Your task to perform on an android device: move an email to a new category in the gmail app Image 0: 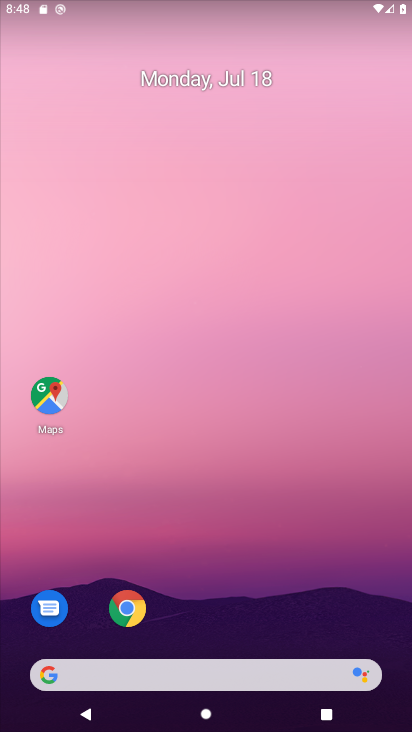
Step 0: drag from (190, 674) to (280, 100)
Your task to perform on an android device: move an email to a new category in the gmail app Image 1: 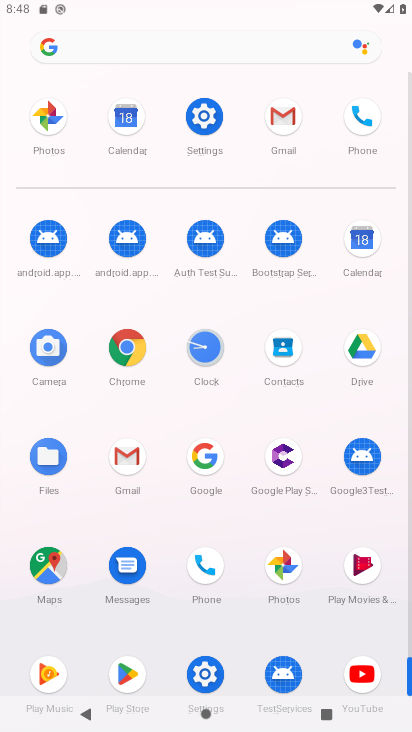
Step 1: click (280, 114)
Your task to perform on an android device: move an email to a new category in the gmail app Image 2: 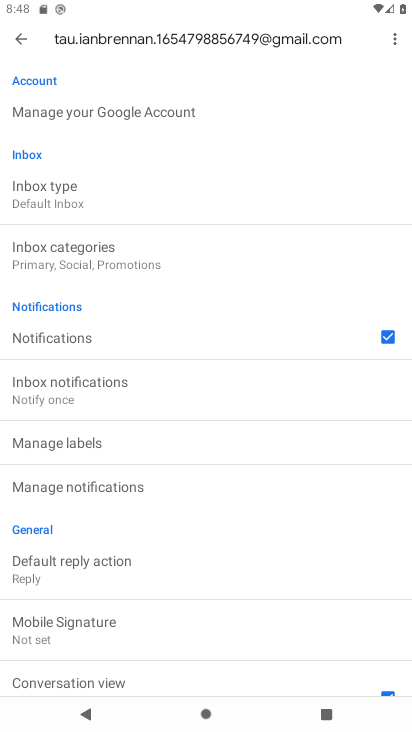
Step 2: press back button
Your task to perform on an android device: move an email to a new category in the gmail app Image 3: 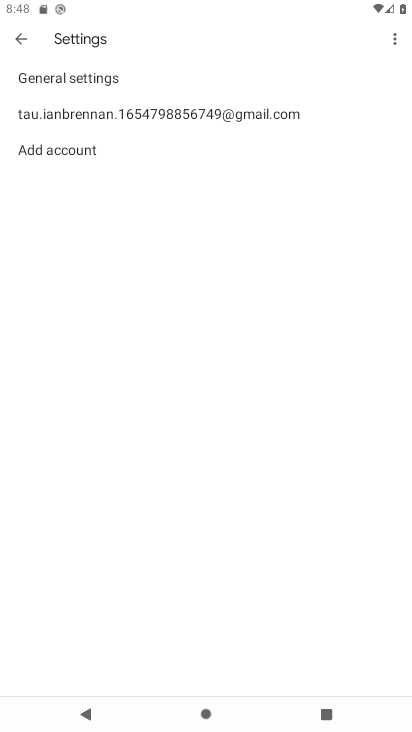
Step 3: press back button
Your task to perform on an android device: move an email to a new category in the gmail app Image 4: 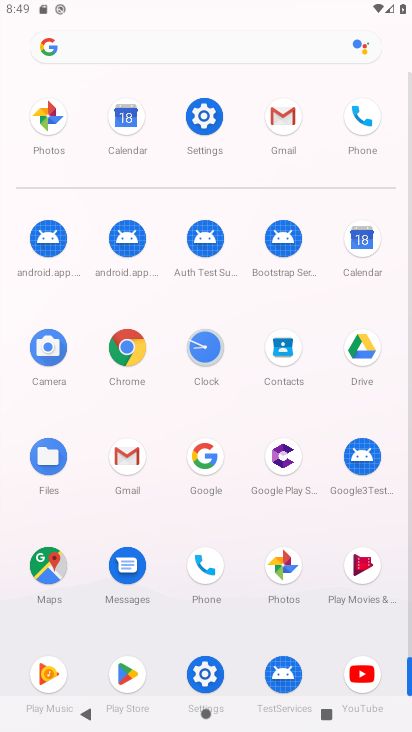
Step 4: click (282, 115)
Your task to perform on an android device: move an email to a new category in the gmail app Image 5: 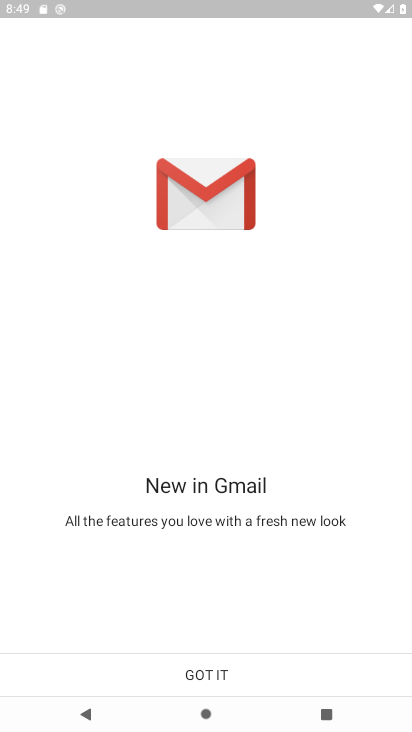
Step 5: click (198, 677)
Your task to perform on an android device: move an email to a new category in the gmail app Image 6: 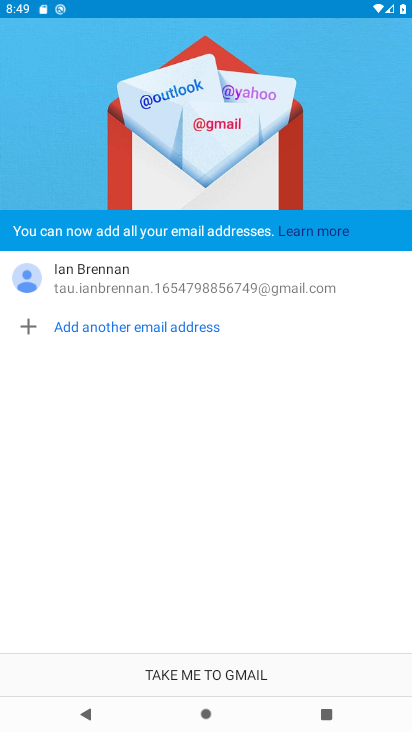
Step 6: click (200, 669)
Your task to perform on an android device: move an email to a new category in the gmail app Image 7: 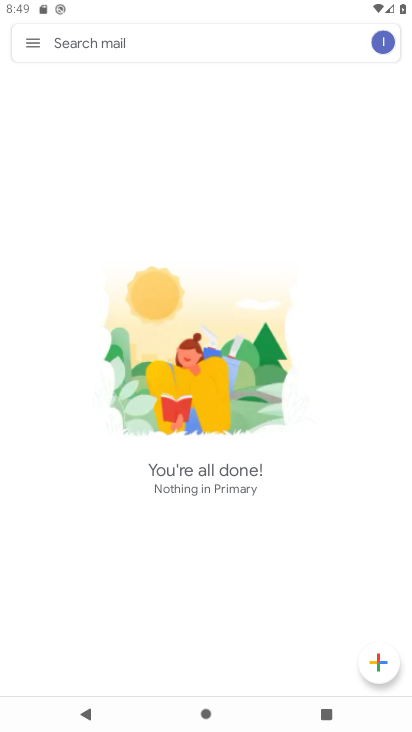
Step 7: click (30, 43)
Your task to perform on an android device: move an email to a new category in the gmail app Image 8: 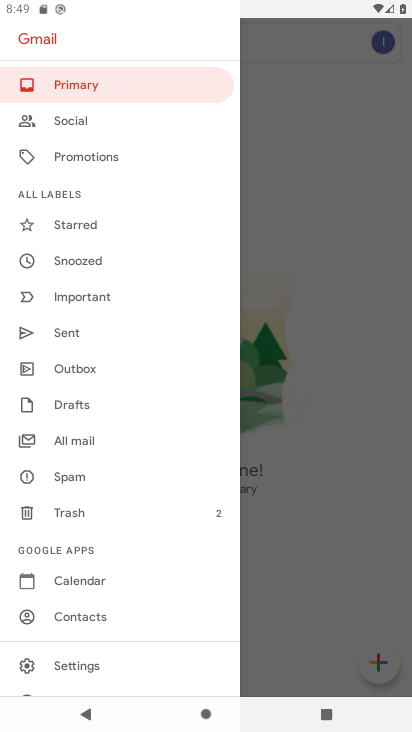
Step 8: click (88, 442)
Your task to perform on an android device: move an email to a new category in the gmail app Image 9: 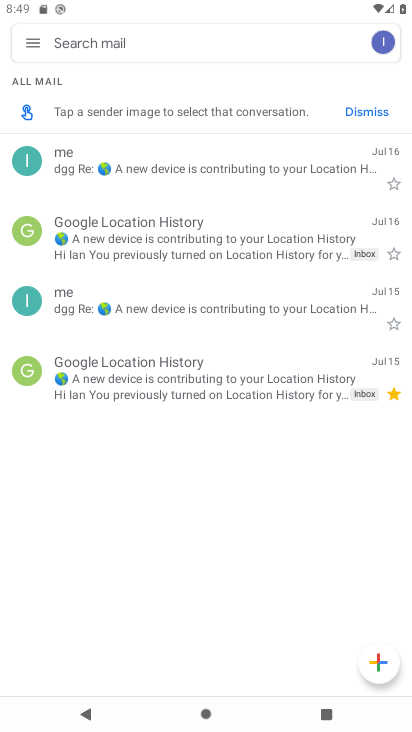
Step 9: click (195, 178)
Your task to perform on an android device: move an email to a new category in the gmail app Image 10: 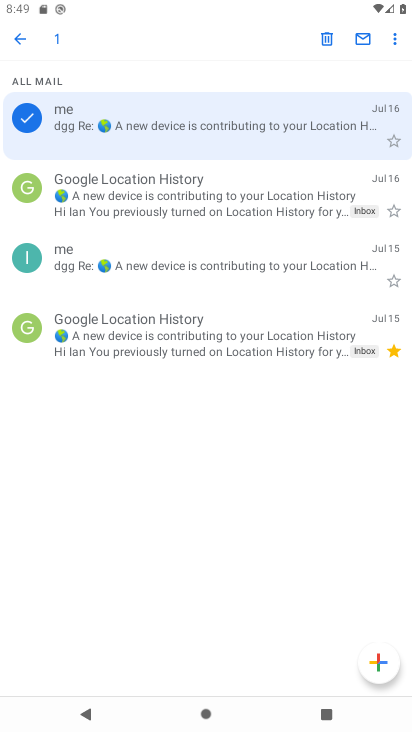
Step 10: click (393, 39)
Your task to perform on an android device: move an email to a new category in the gmail app Image 11: 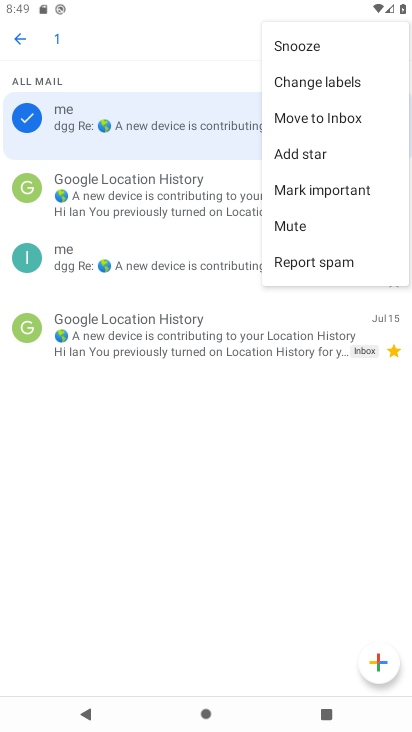
Step 11: click (350, 112)
Your task to perform on an android device: move an email to a new category in the gmail app Image 12: 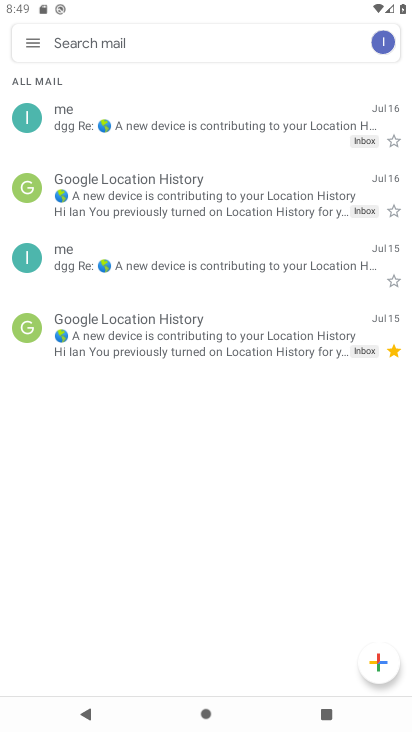
Step 12: task complete